Your task to perform on an android device: check battery use Image 0: 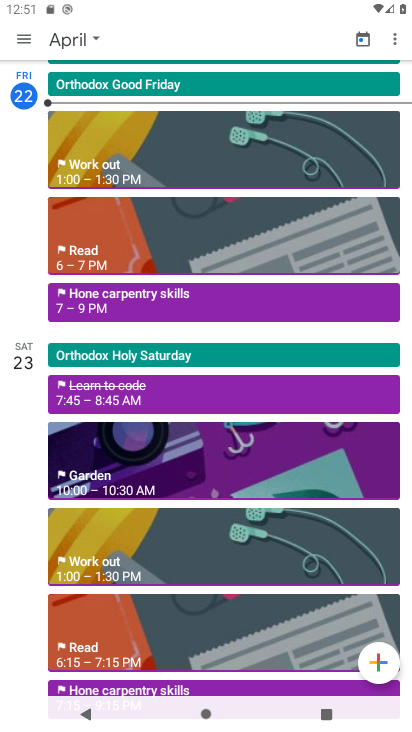
Step 0: press home button
Your task to perform on an android device: check battery use Image 1: 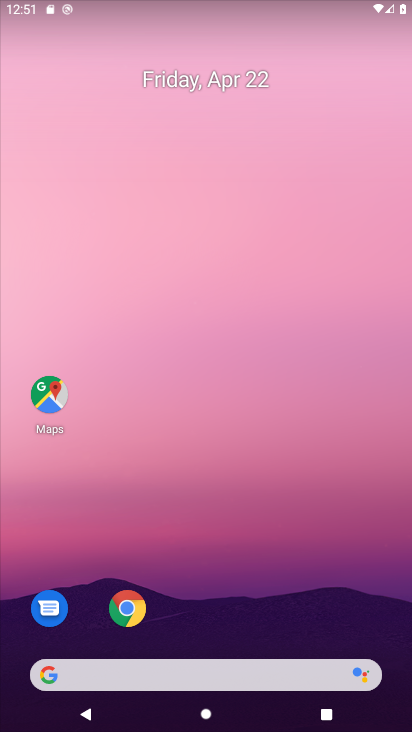
Step 1: drag from (291, 593) to (287, 20)
Your task to perform on an android device: check battery use Image 2: 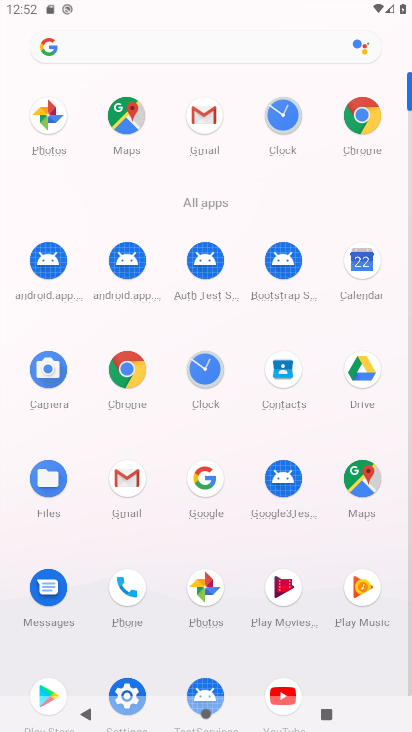
Step 2: click (411, 671)
Your task to perform on an android device: check battery use Image 3: 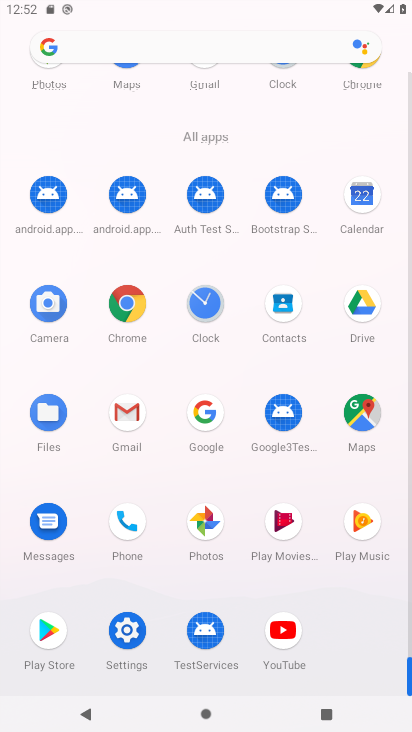
Step 3: click (124, 626)
Your task to perform on an android device: check battery use Image 4: 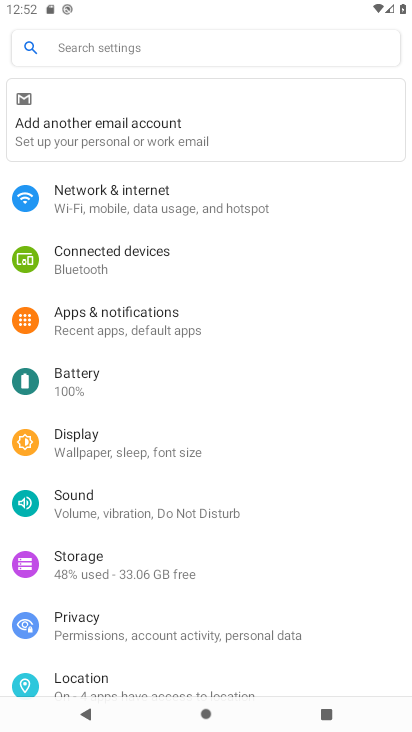
Step 4: drag from (370, 640) to (368, 285)
Your task to perform on an android device: check battery use Image 5: 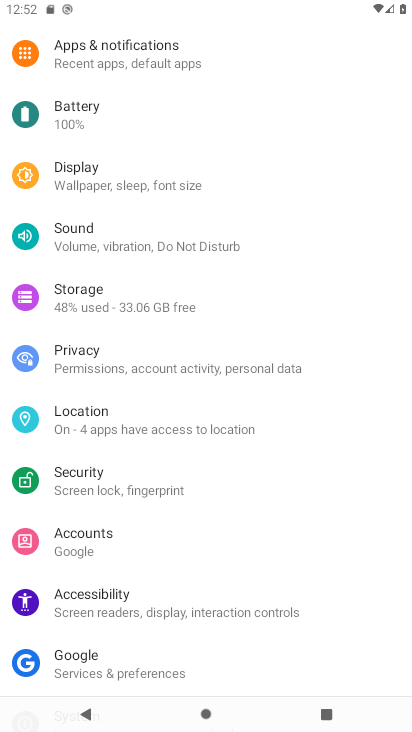
Step 5: click (42, 114)
Your task to perform on an android device: check battery use Image 6: 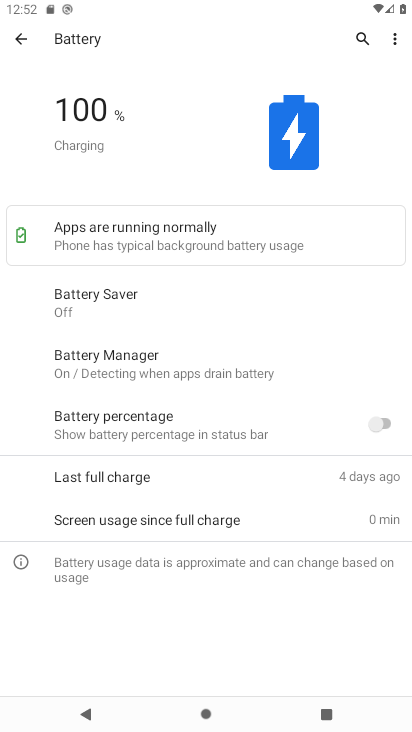
Step 6: task complete